Your task to perform on an android device: Clear the cart on walmart.com. Search for amazon basics triple a on walmart.com, select the first entry, add it to the cart, then select checkout. Image 0: 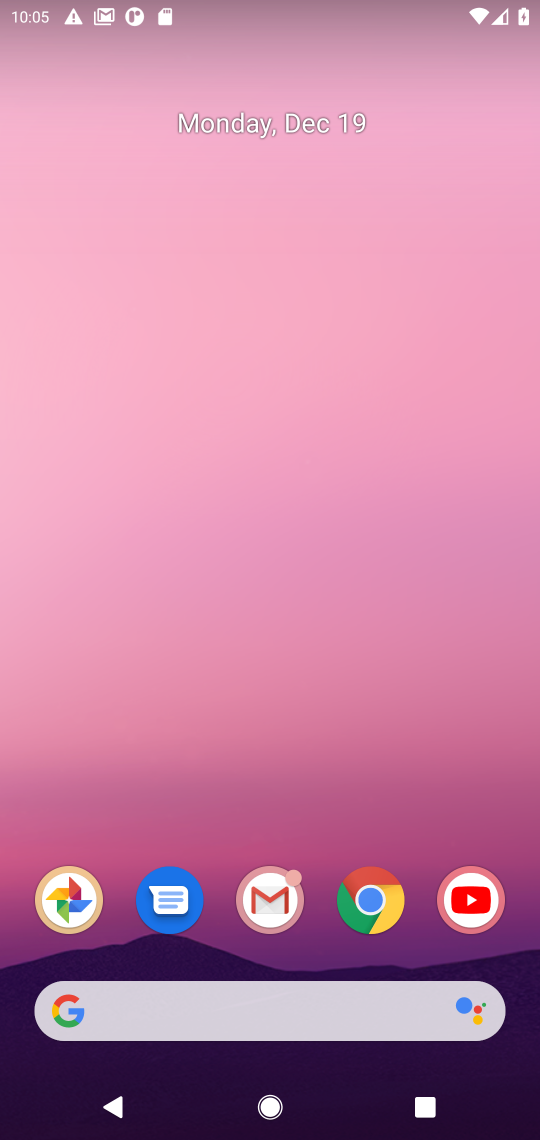
Step 0: click (369, 931)
Your task to perform on an android device: Clear the cart on walmart.com. Search for amazon basics triple a on walmart.com, select the first entry, add it to the cart, then select checkout. Image 1: 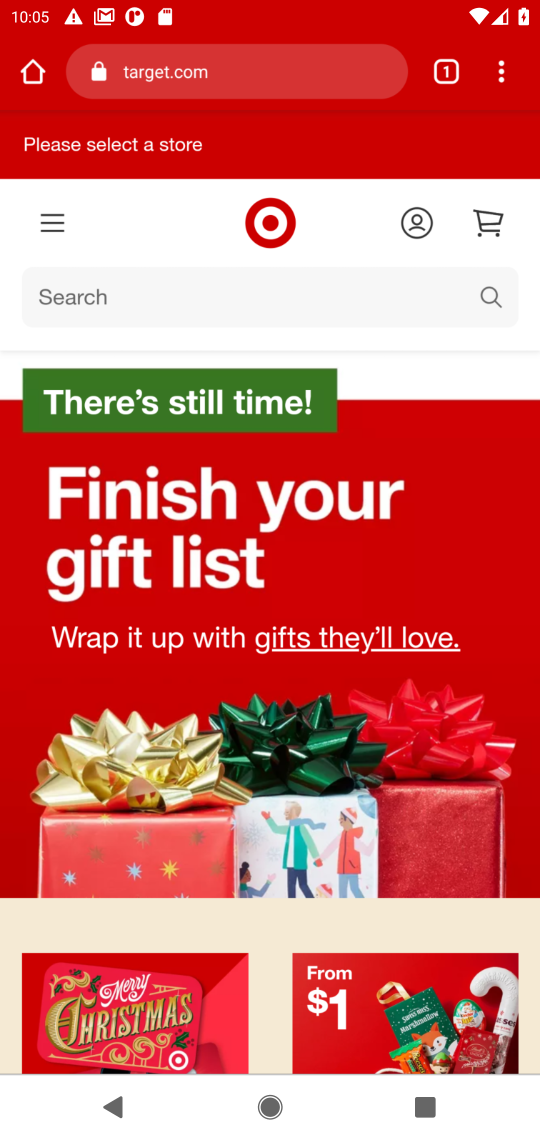
Step 1: click (264, 57)
Your task to perform on an android device: Clear the cart on walmart.com. Search for amazon basics triple a on walmart.com, select the first entry, add it to the cart, then select checkout. Image 2: 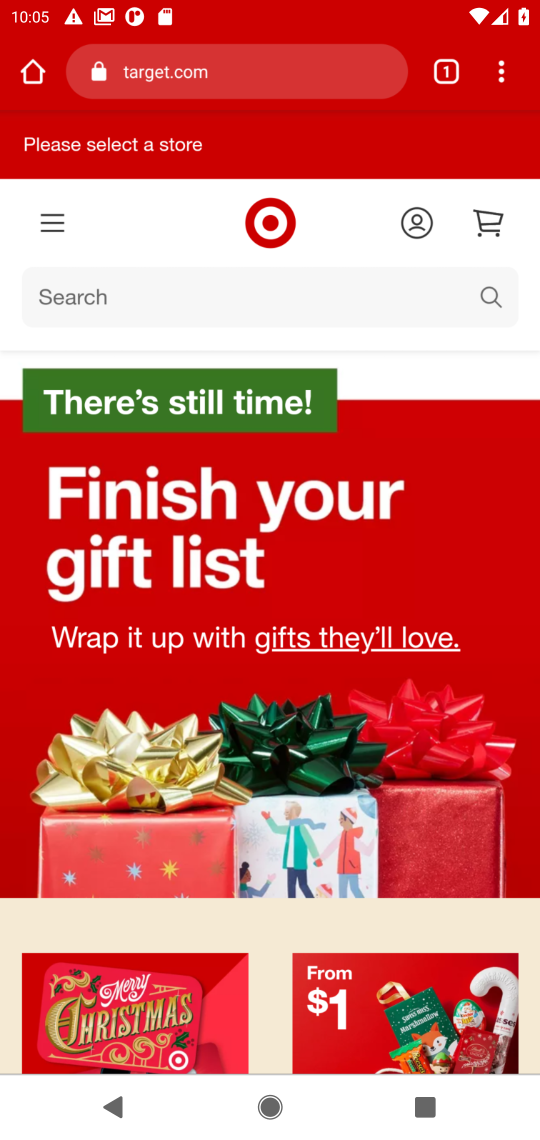
Step 2: click (265, 79)
Your task to perform on an android device: Clear the cart on walmart.com. Search for amazon basics triple a on walmart.com, select the first entry, add it to the cart, then select checkout. Image 3: 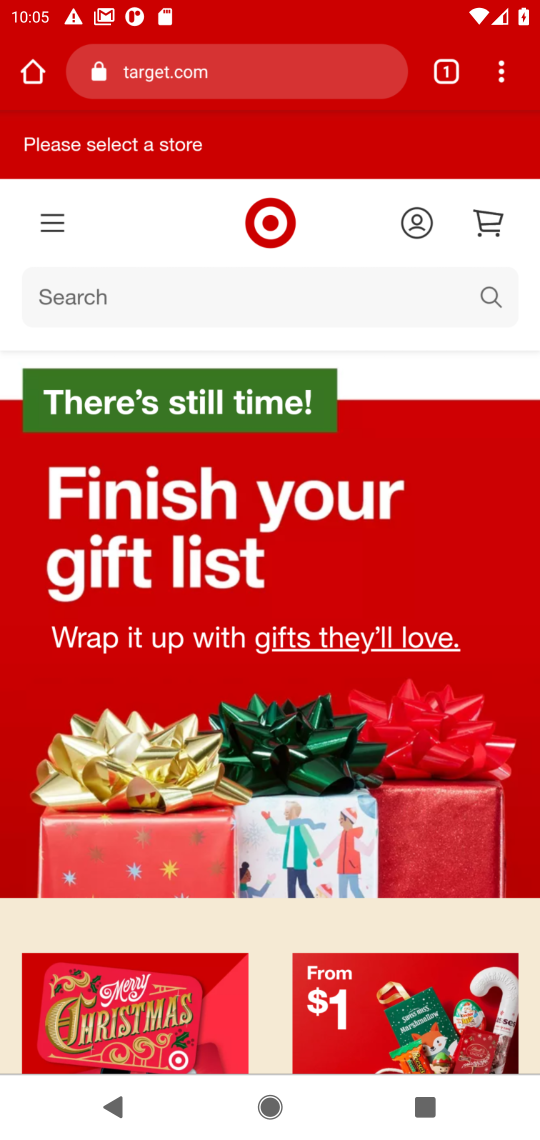
Step 3: click (243, 75)
Your task to perform on an android device: Clear the cart on walmart.com. Search for amazon basics triple a on walmart.com, select the first entry, add it to the cart, then select checkout. Image 4: 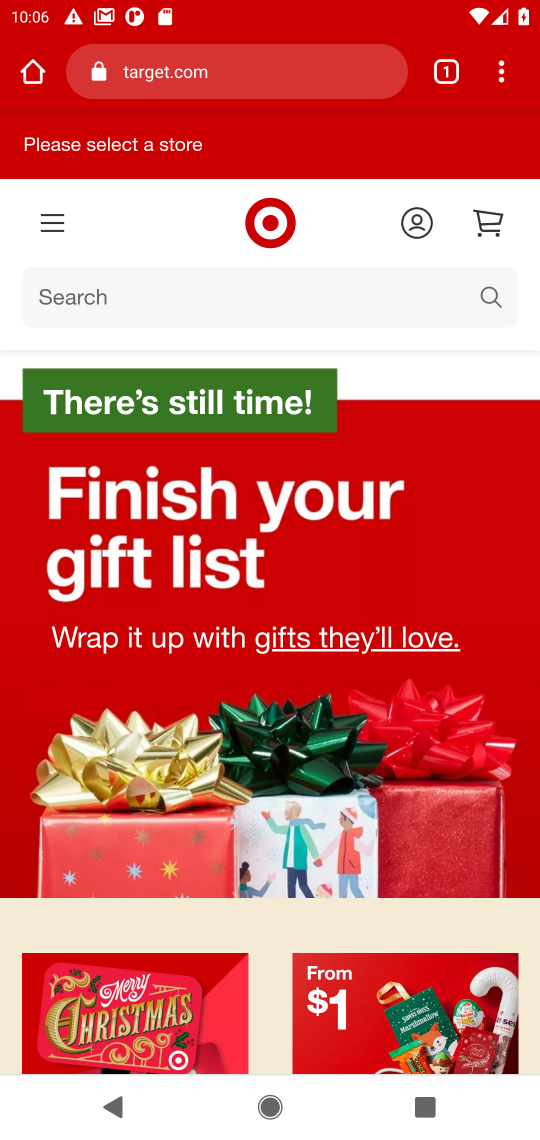
Step 4: click (202, 82)
Your task to perform on an android device: Clear the cart on walmart.com. Search for amazon basics triple a on walmart.com, select the first entry, add it to the cart, then select checkout. Image 5: 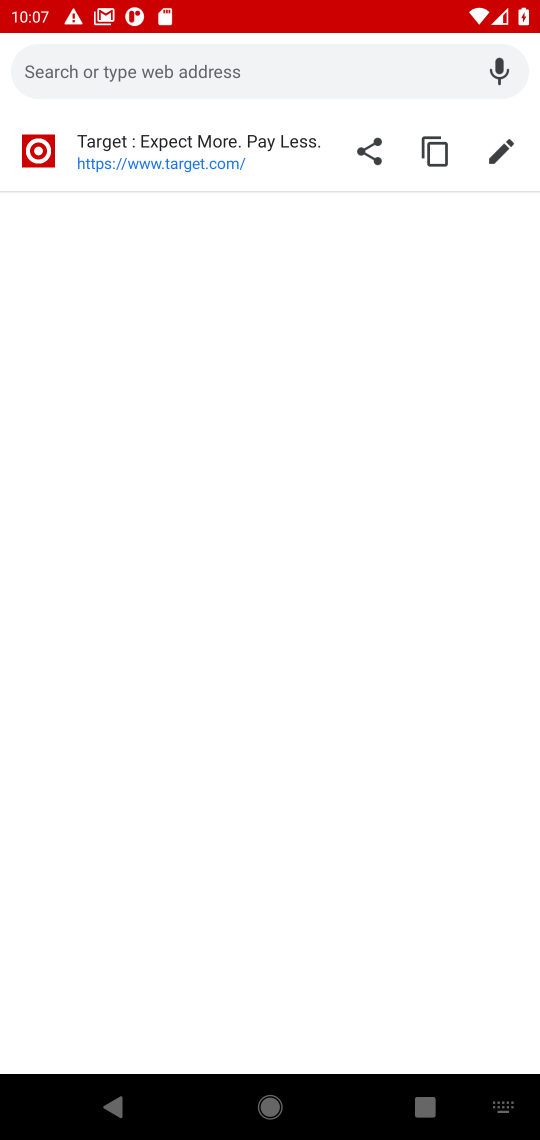
Step 5: type "walmart"
Your task to perform on an android device: Clear the cart on walmart.com. Search for amazon basics triple a on walmart.com, select the first entry, add it to the cart, then select checkout. Image 6: 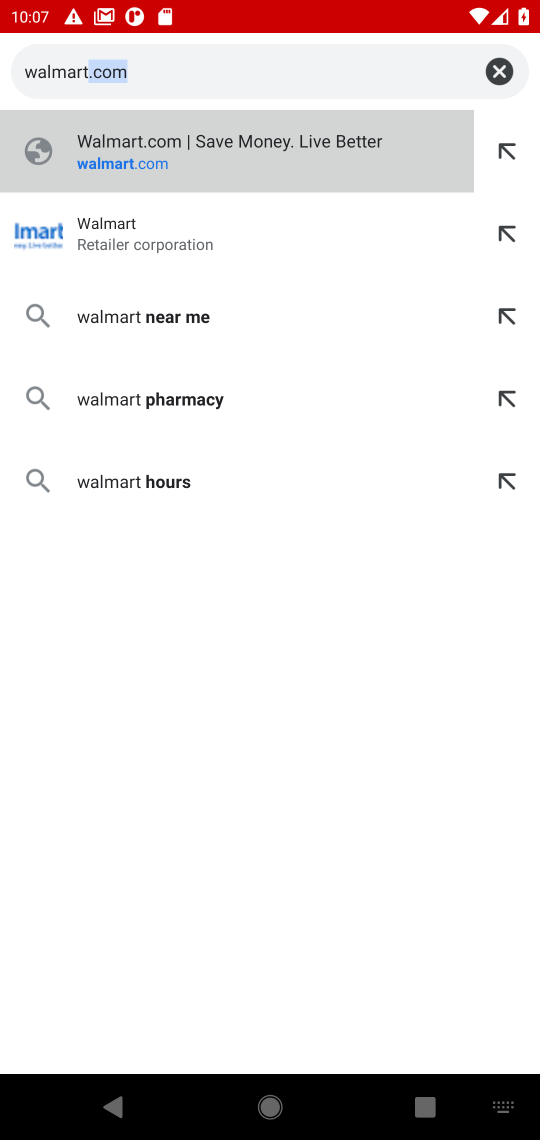
Step 6: click (199, 136)
Your task to perform on an android device: Clear the cart on walmart.com. Search for amazon basics triple a on walmart.com, select the first entry, add it to the cart, then select checkout. Image 7: 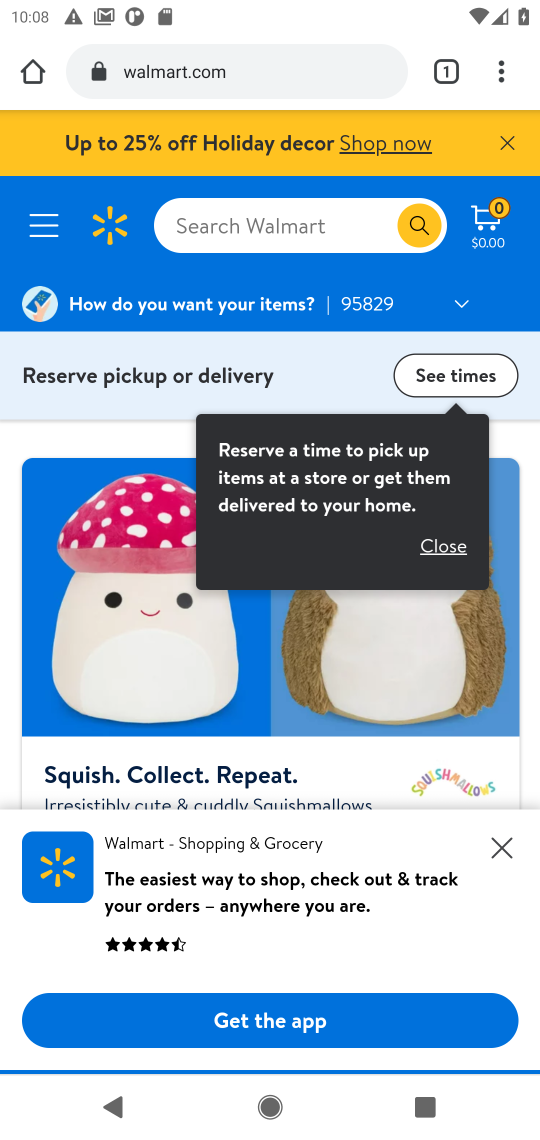
Step 7: click (313, 229)
Your task to perform on an android device: Clear the cart on walmart.com. Search for amazon basics triple a on walmart.com, select the first entry, add it to the cart, then select checkout. Image 8: 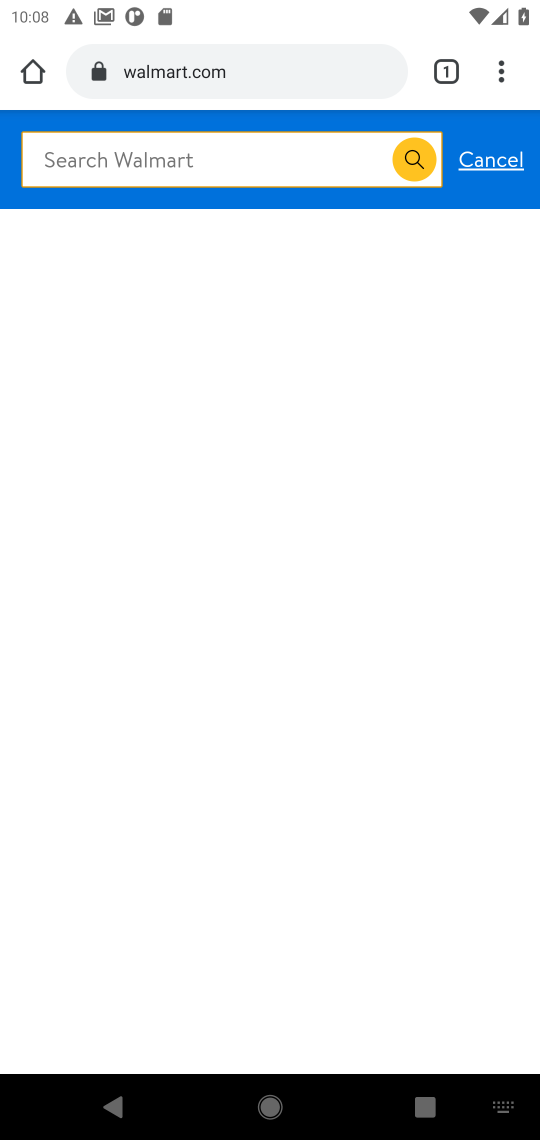
Step 8: type "amazon basics triple a"
Your task to perform on an android device: Clear the cart on walmart.com. Search for amazon basics triple a on walmart.com, select the first entry, add it to the cart, then select checkout. Image 9: 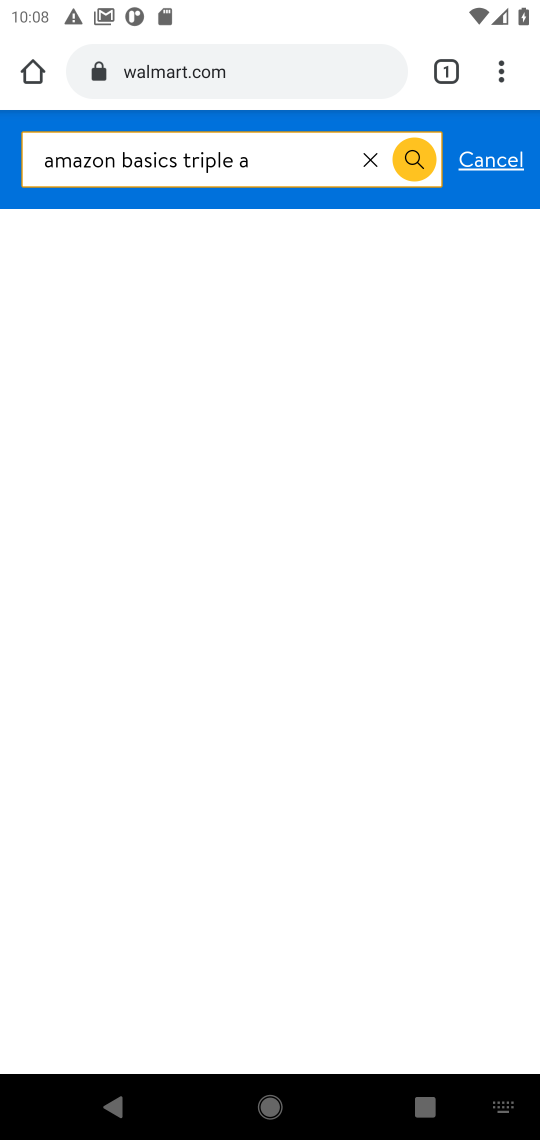
Step 9: click (413, 159)
Your task to perform on an android device: Clear the cart on walmart.com. Search for amazon basics triple a on walmart.com, select the first entry, add it to the cart, then select checkout. Image 10: 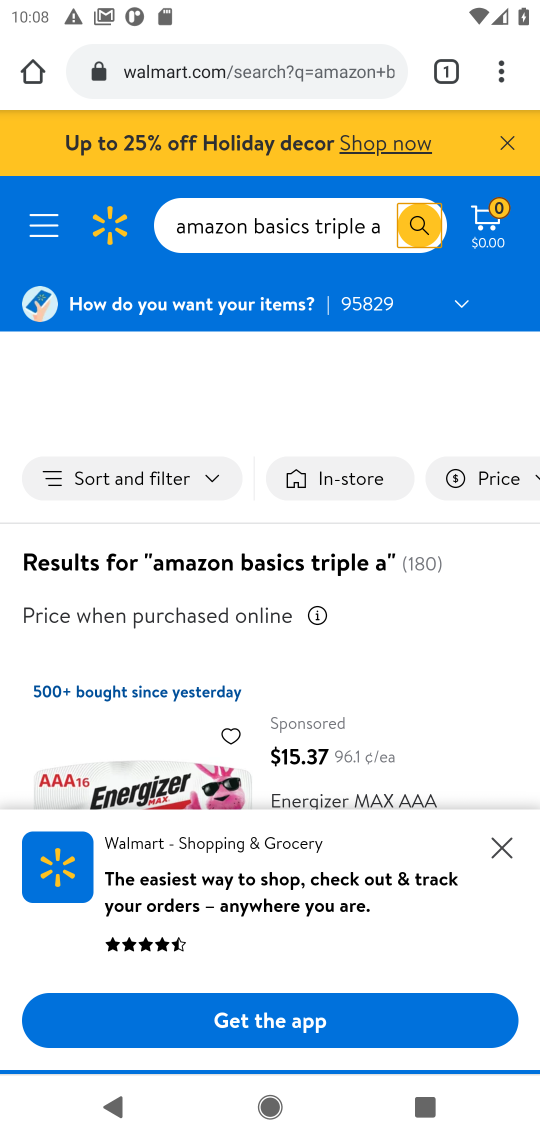
Step 10: drag from (348, 763) to (358, 448)
Your task to perform on an android device: Clear the cart on walmart.com. Search for amazon basics triple a on walmart.com, select the first entry, add it to the cart, then select checkout. Image 11: 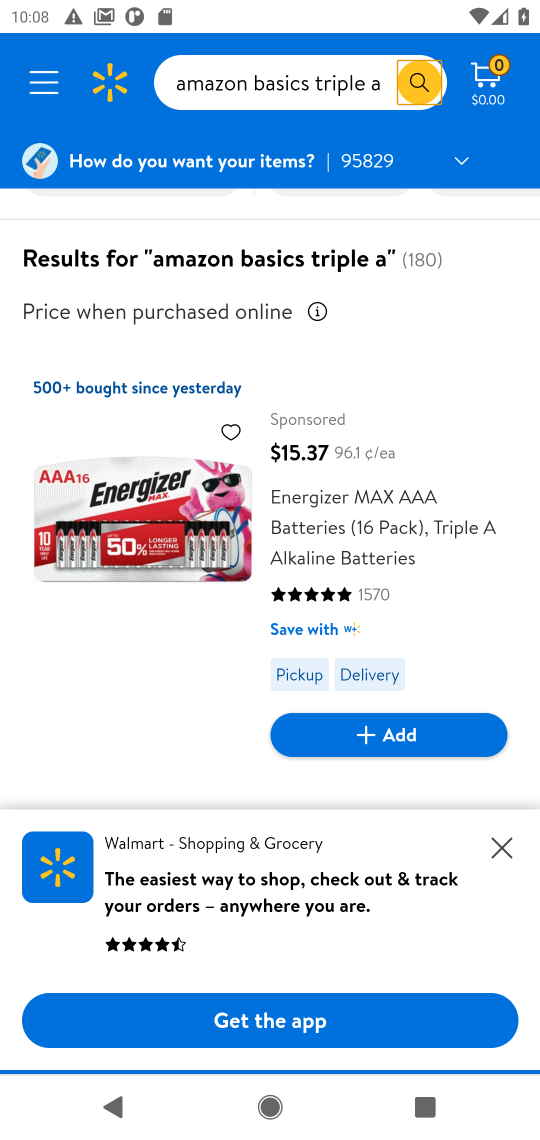
Step 11: click (412, 732)
Your task to perform on an android device: Clear the cart on walmart.com. Search for amazon basics triple a on walmart.com, select the first entry, add it to the cart, then select checkout. Image 12: 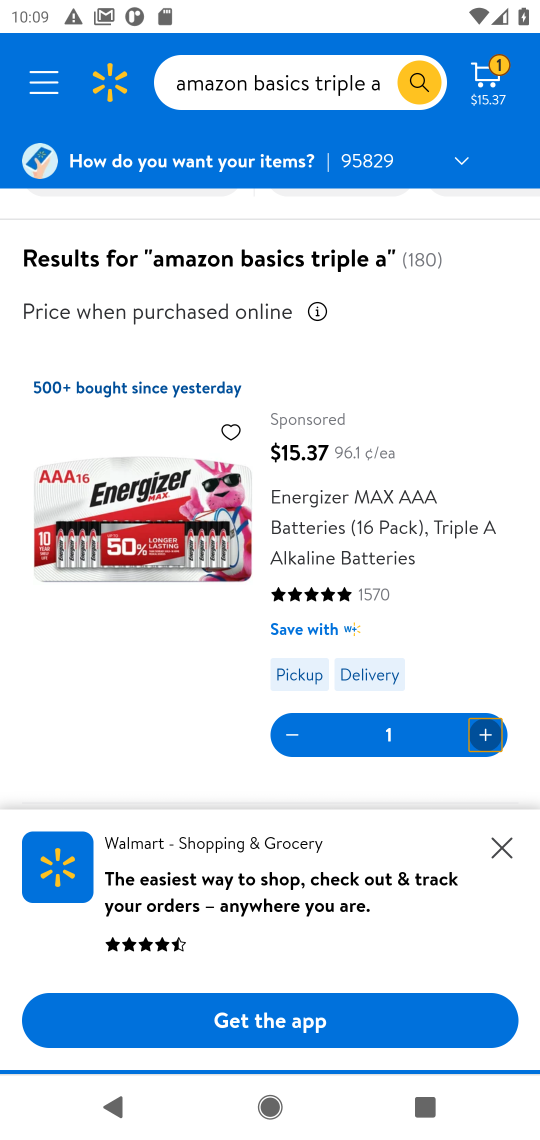
Step 12: click (495, 72)
Your task to perform on an android device: Clear the cart on walmart.com. Search for amazon basics triple a on walmart.com, select the first entry, add it to the cart, then select checkout. Image 13: 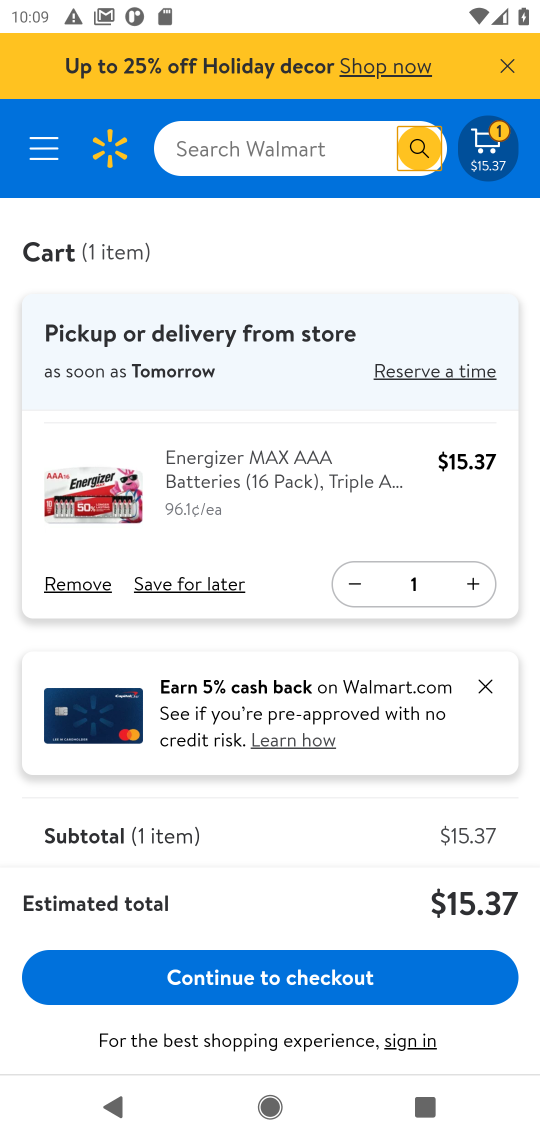
Step 13: click (309, 974)
Your task to perform on an android device: Clear the cart on walmart.com. Search for amazon basics triple a on walmart.com, select the first entry, add it to the cart, then select checkout. Image 14: 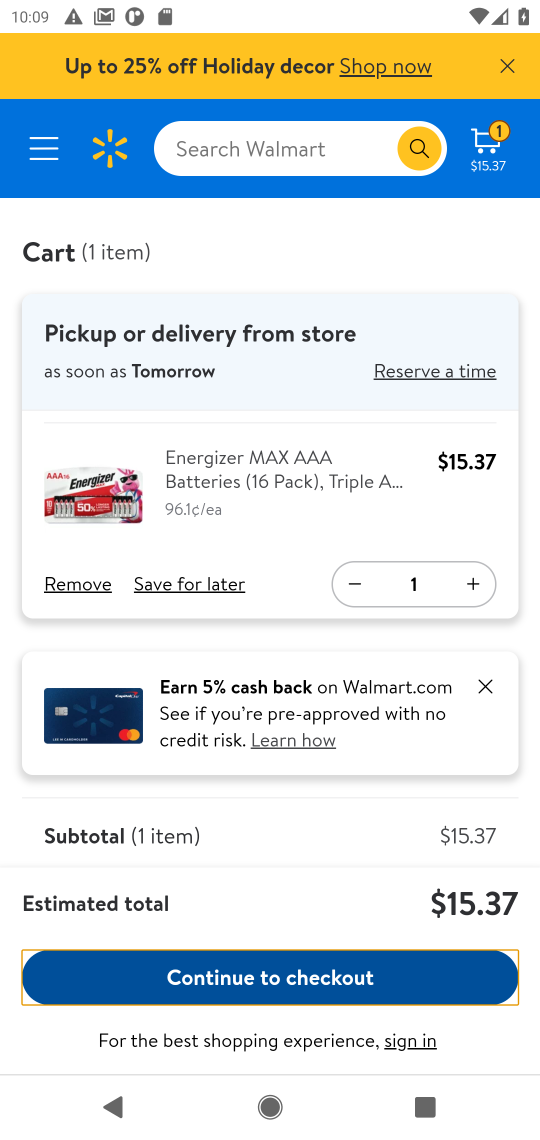
Step 14: click (291, 981)
Your task to perform on an android device: Clear the cart on walmart.com. Search for amazon basics triple a on walmart.com, select the first entry, add it to the cart, then select checkout. Image 15: 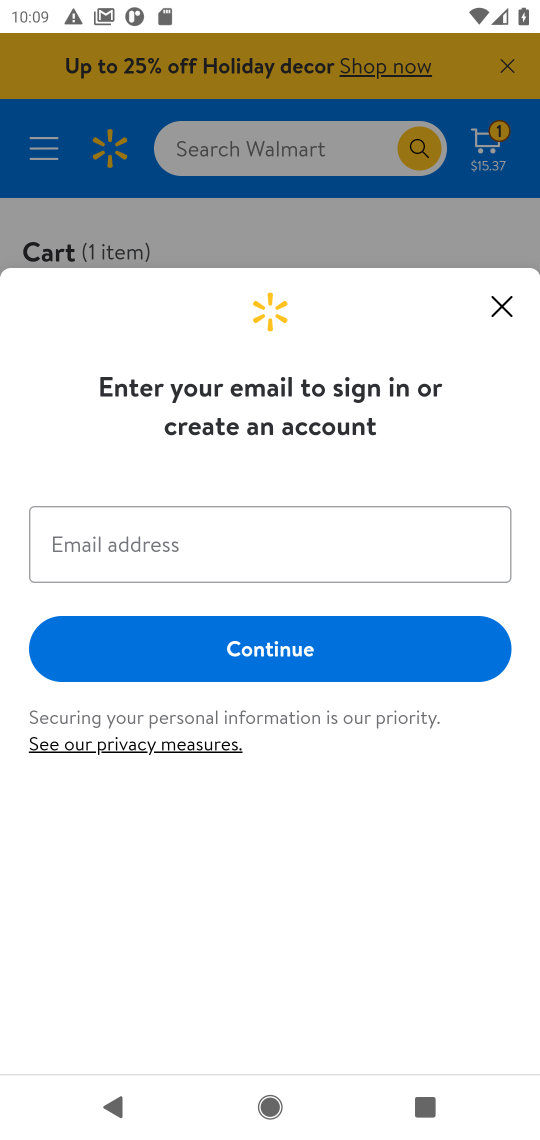
Step 15: click (502, 302)
Your task to perform on an android device: Clear the cart on walmart.com. Search for amazon basics triple a on walmart.com, select the first entry, add it to the cart, then select checkout. Image 16: 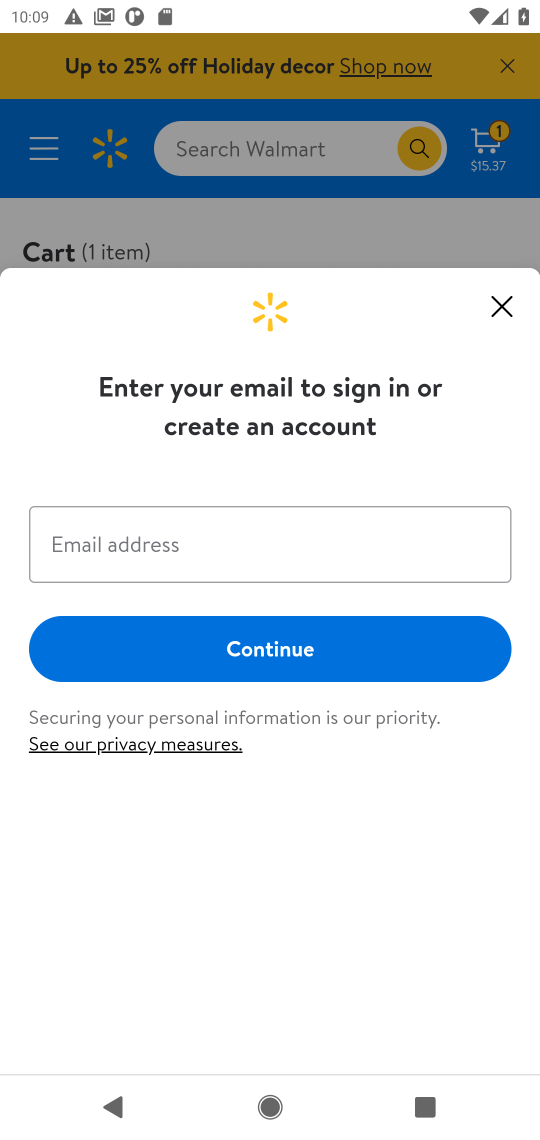
Step 16: task complete